Your task to perform on an android device: delete a single message in the gmail app Image 0: 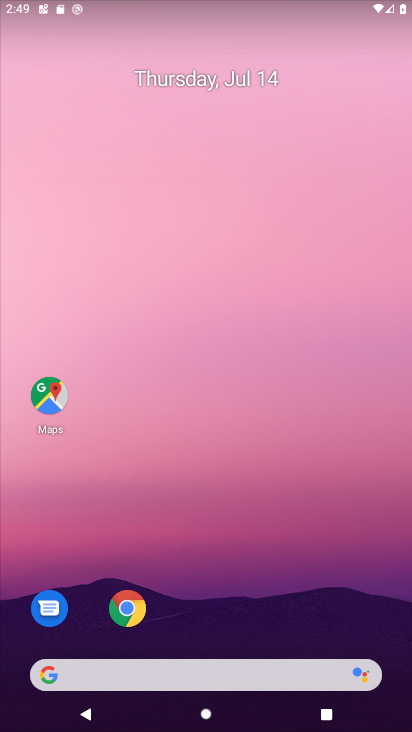
Step 0: drag from (196, 454) to (187, 0)
Your task to perform on an android device: delete a single message in the gmail app Image 1: 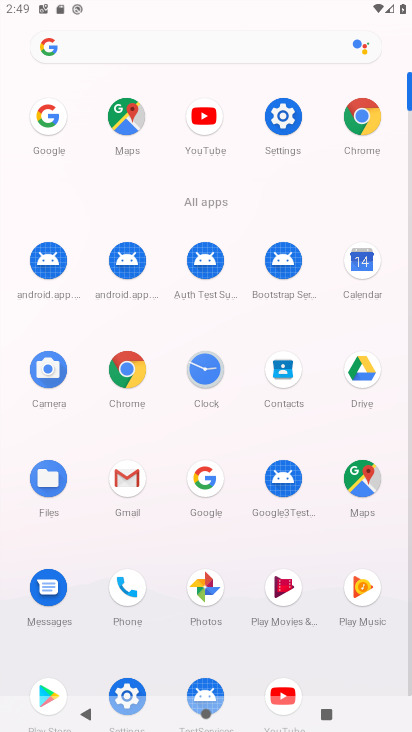
Step 1: click (132, 476)
Your task to perform on an android device: delete a single message in the gmail app Image 2: 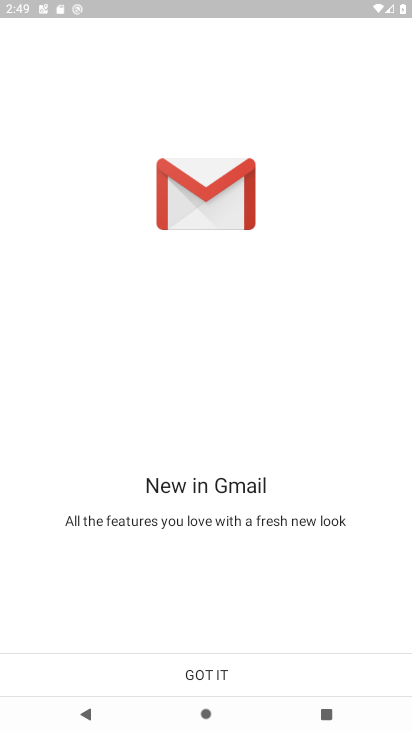
Step 2: click (208, 676)
Your task to perform on an android device: delete a single message in the gmail app Image 3: 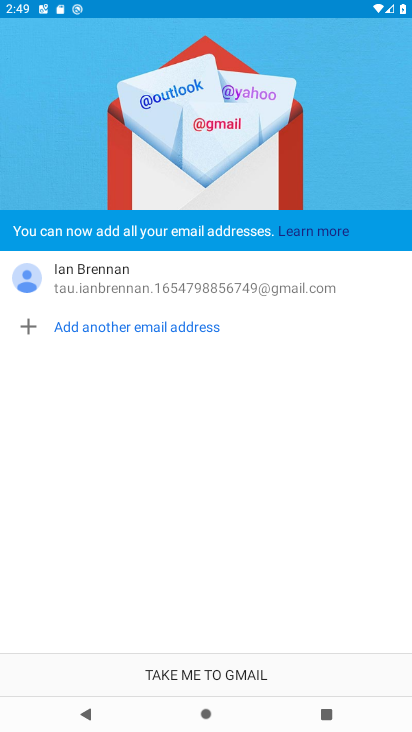
Step 3: click (156, 674)
Your task to perform on an android device: delete a single message in the gmail app Image 4: 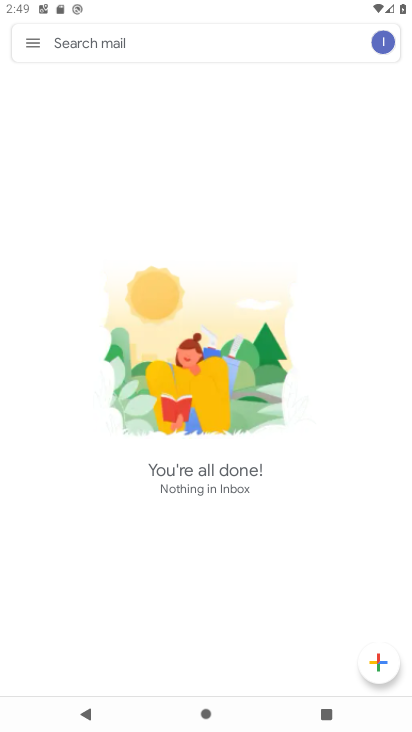
Step 4: task complete